Your task to perform on an android device: toggle data saver in the chrome app Image 0: 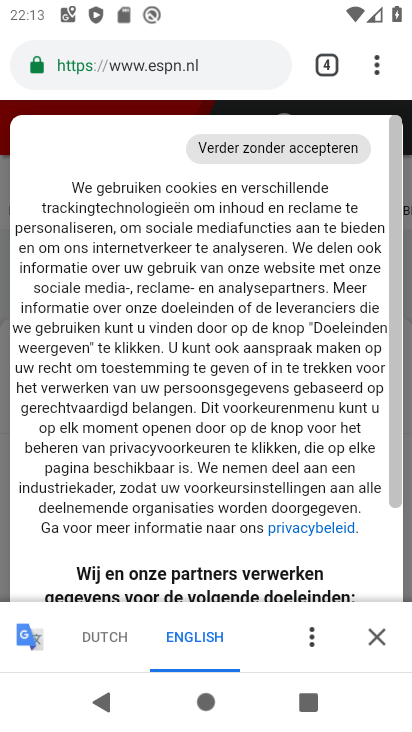
Step 0: press home button
Your task to perform on an android device: toggle data saver in the chrome app Image 1: 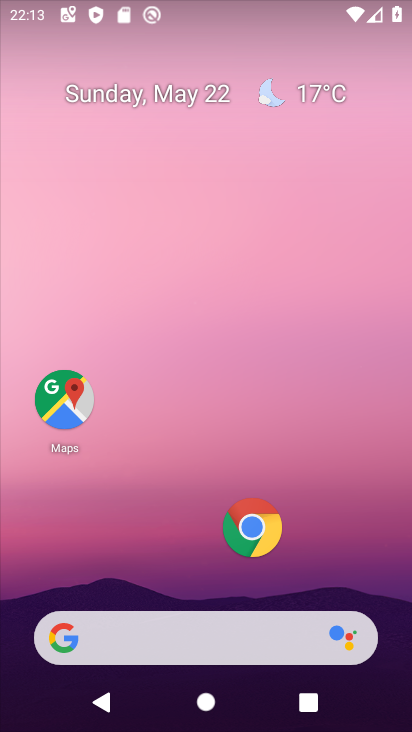
Step 1: click (257, 529)
Your task to perform on an android device: toggle data saver in the chrome app Image 2: 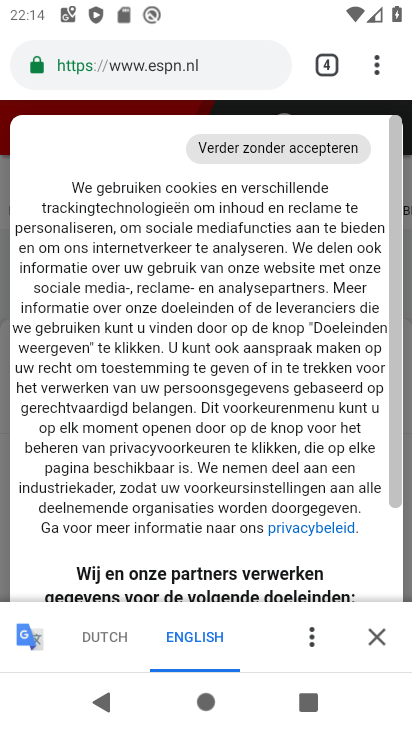
Step 2: click (377, 60)
Your task to perform on an android device: toggle data saver in the chrome app Image 3: 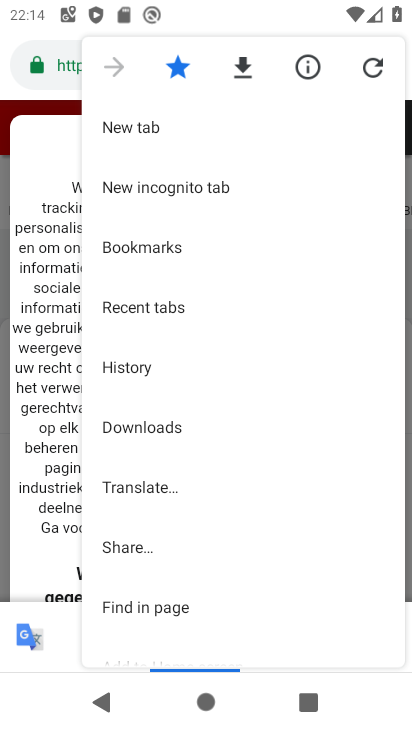
Step 3: drag from (261, 533) to (262, 196)
Your task to perform on an android device: toggle data saver in the chrome app Image 4: 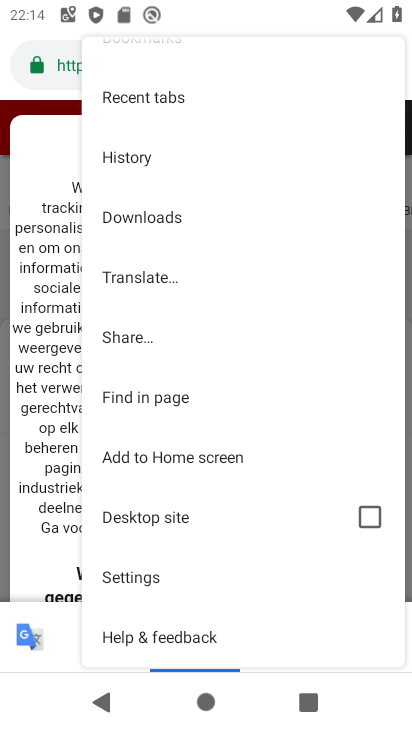
Step 4: click (141, 576)
Your task to perform on an android device: toggle data saver in the chrome app Image 5: 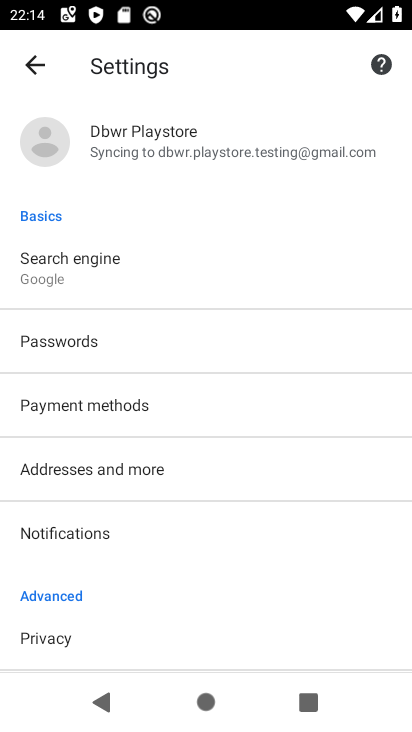
Step 5: drag from (254, 484) to (254, 18)
Your task to perform on an android device: toggle data saver in the chrome app Image 6: 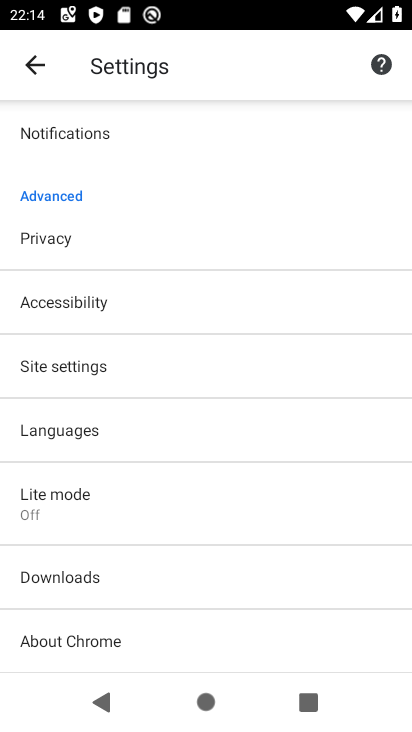
Step 6: click (57, 473)
Your task to perform on an android device: toggle data saver in the chrome app Image 7: 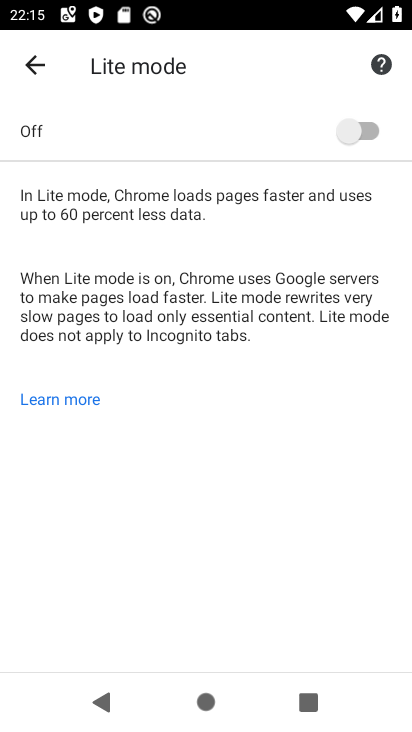
Step 7: click (342, 127)
Your task to perform on an android device: toggle data saver in the chrome app Image 8: 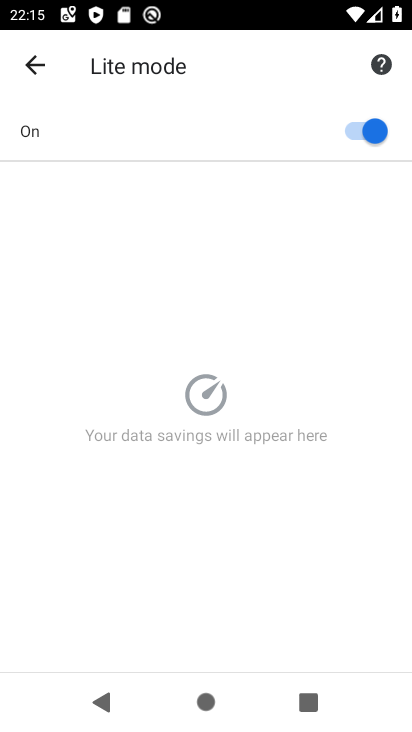
Step 8: task complete